Your task to perform on an android device: Go to Reddit.com Image 0: 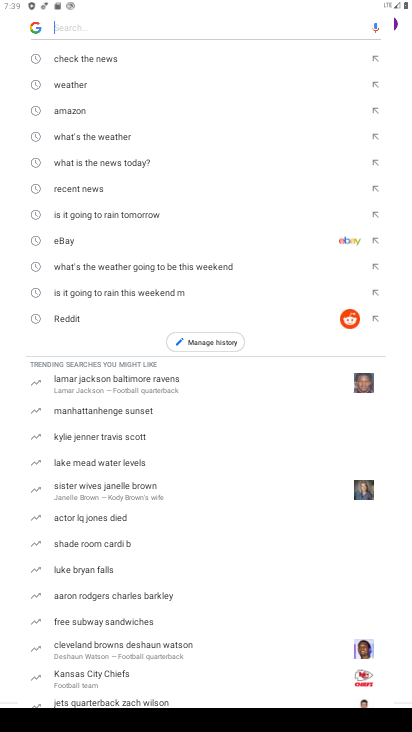
Step 0: click (86, 317)
Your task to perform on an android device: Go to Reddit.com Image 1: 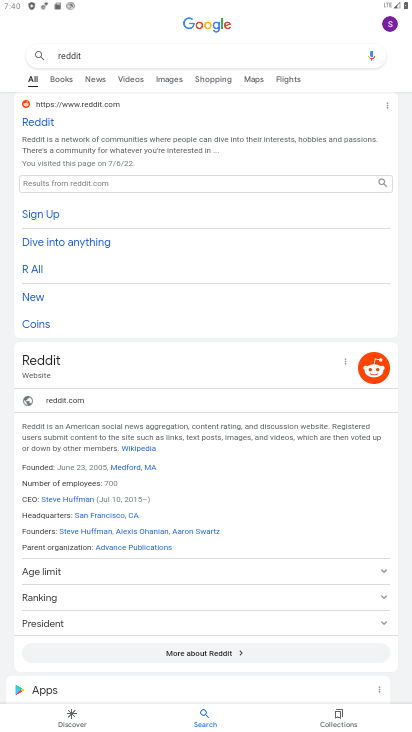
Step 1: click (67, 120)
Your task to perform on an android device: Go to Reddit.com Image 2: 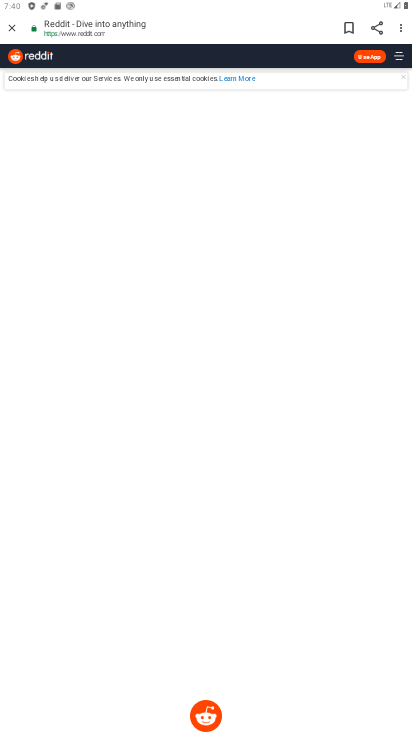
Step 2: task complete